Your task to perform on an android device: View the shopping cart on costco.com. Add amazon basics triple a to the cart on costco.com, then select checkout. Image 0: 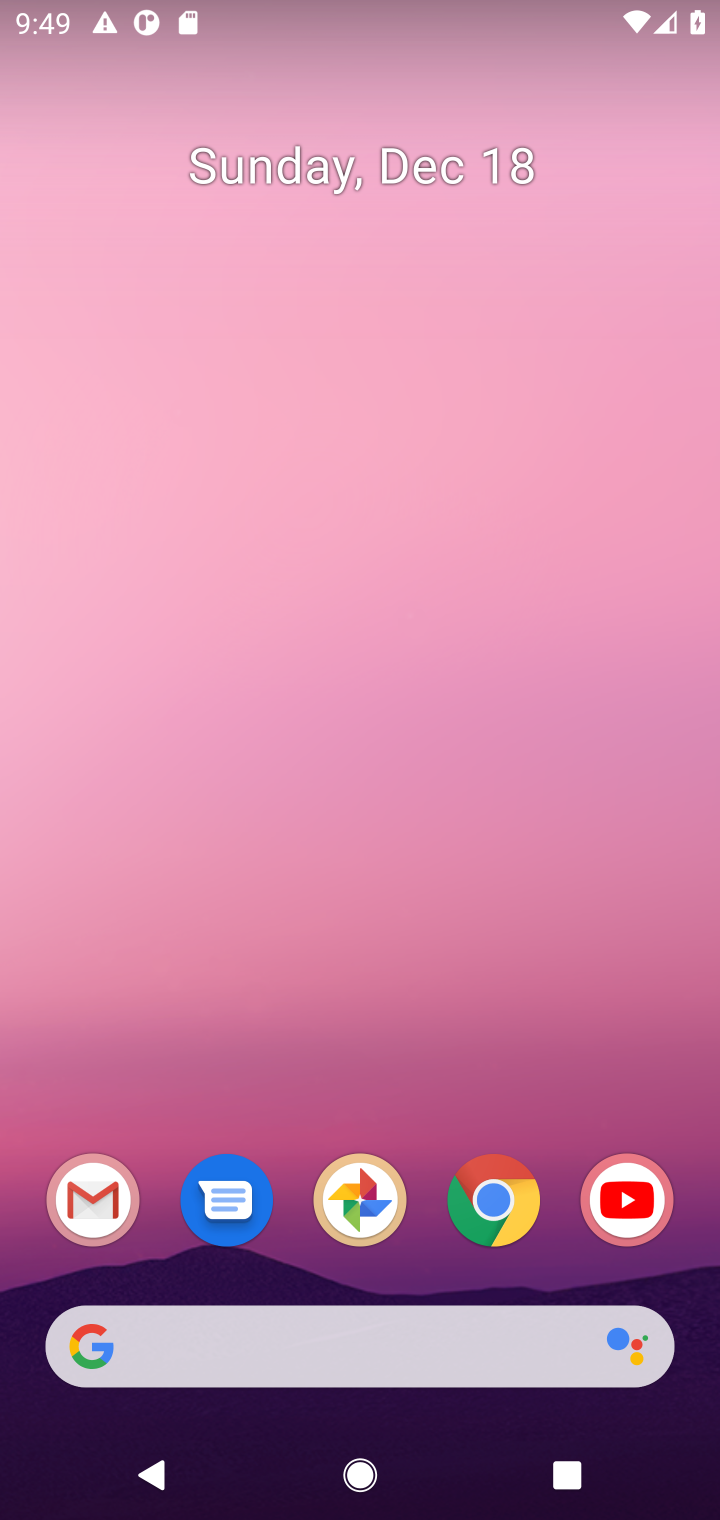
Step 0: click (485, 1199)
Your task to perform on an android device: View the shopping cart on costco.com. Add amazon basics triple a to the cart on costco.com, then select checkout. Image 1: 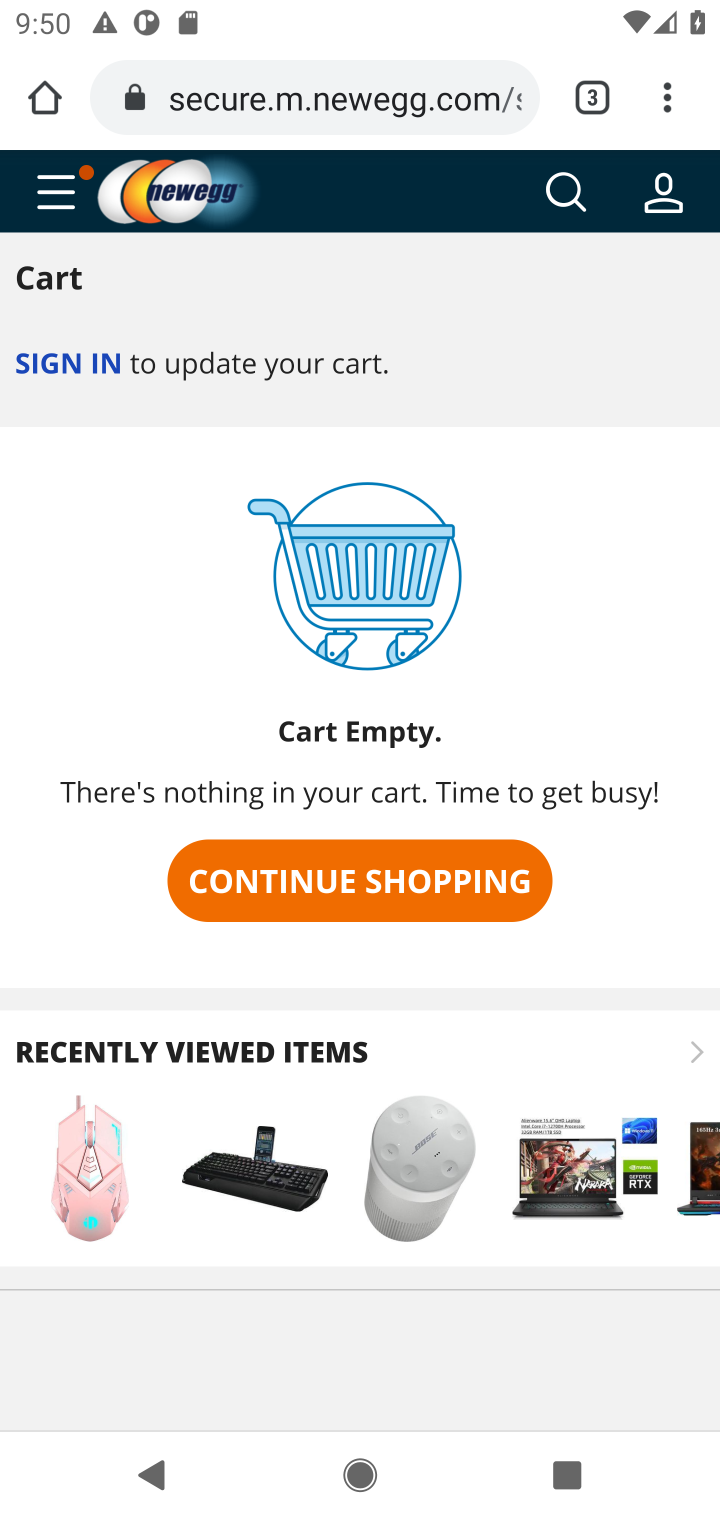
Step 1: click (259, 98)
Your task to perform on an android device: View the shopping cart on costco.com. Add amazon basics triple a to the cart on costco.com, then select checkout. Image 2: 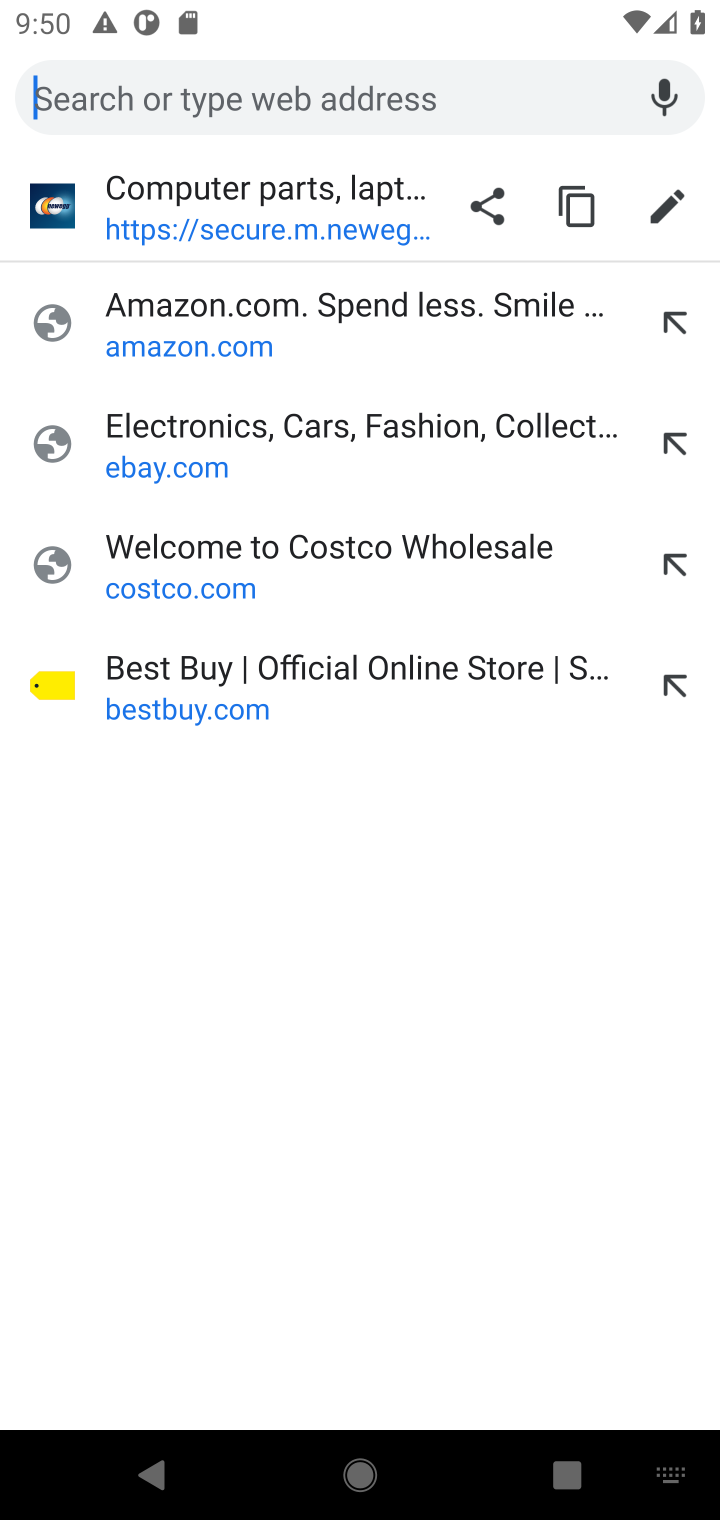
Step 2: click (174, 556)
Your task to perform on an android device: View the shopping cart on costco.com. Add amazon basics triple a to the cart on costco.com, then select checkout. Image 3: 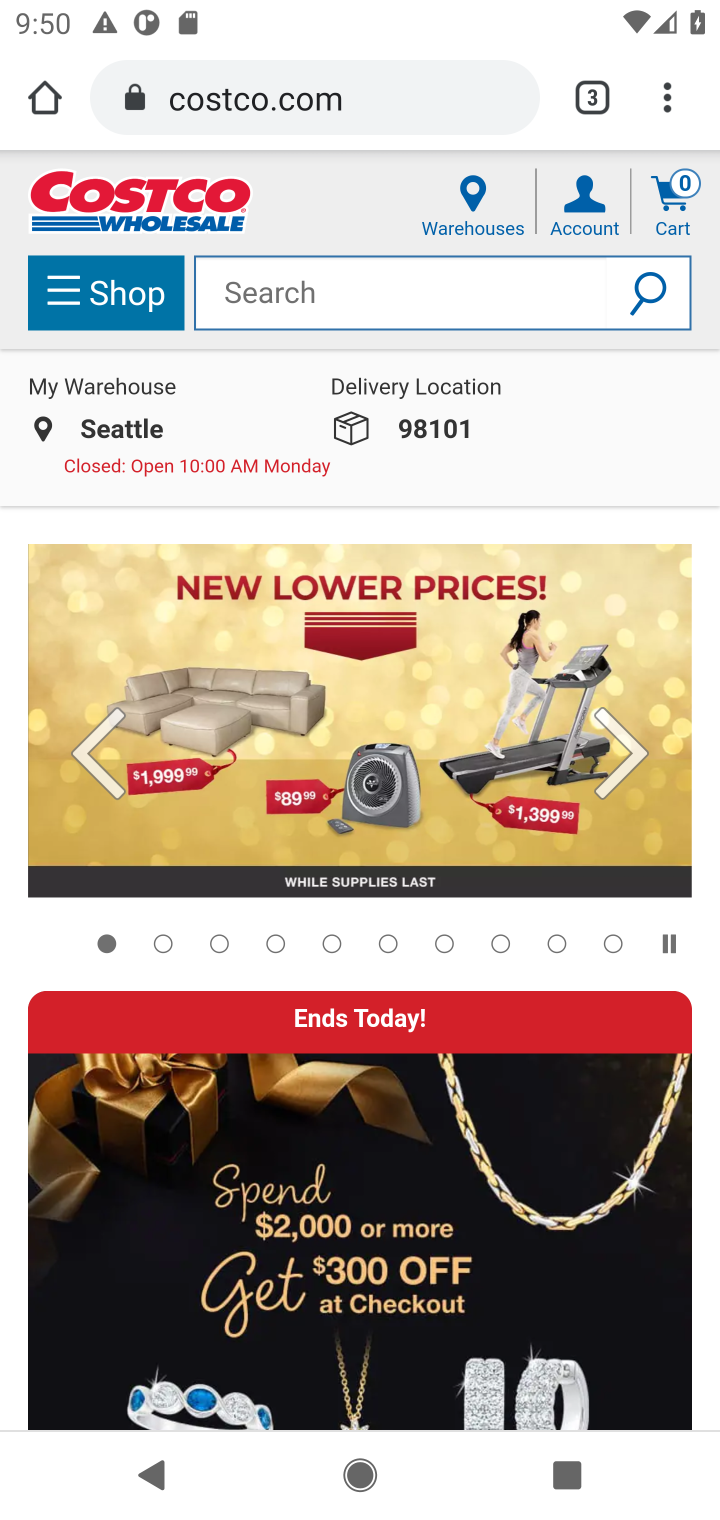
Step 3: click (676, 205)
Your task to perform on an android device: View the shopping cart on costco.com. Add amazon basics triple a to the cart on costco.com, then select checkout. Image 4: 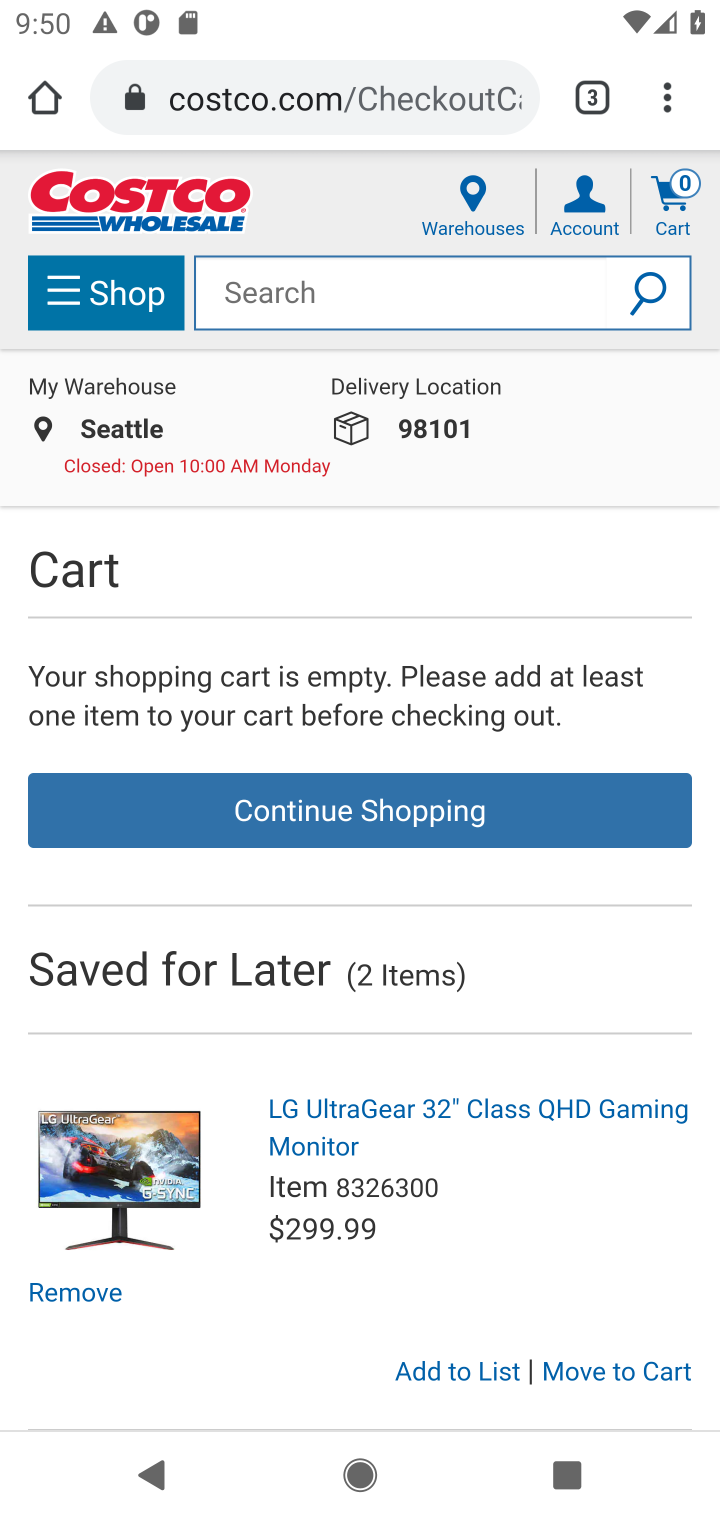
Step 4: click (312, 309)
Your task to perform on an android device: View the shopping cart on costco.com. Add amazon basics triple a to the cart on costco.com, then select checkout. Image 5: 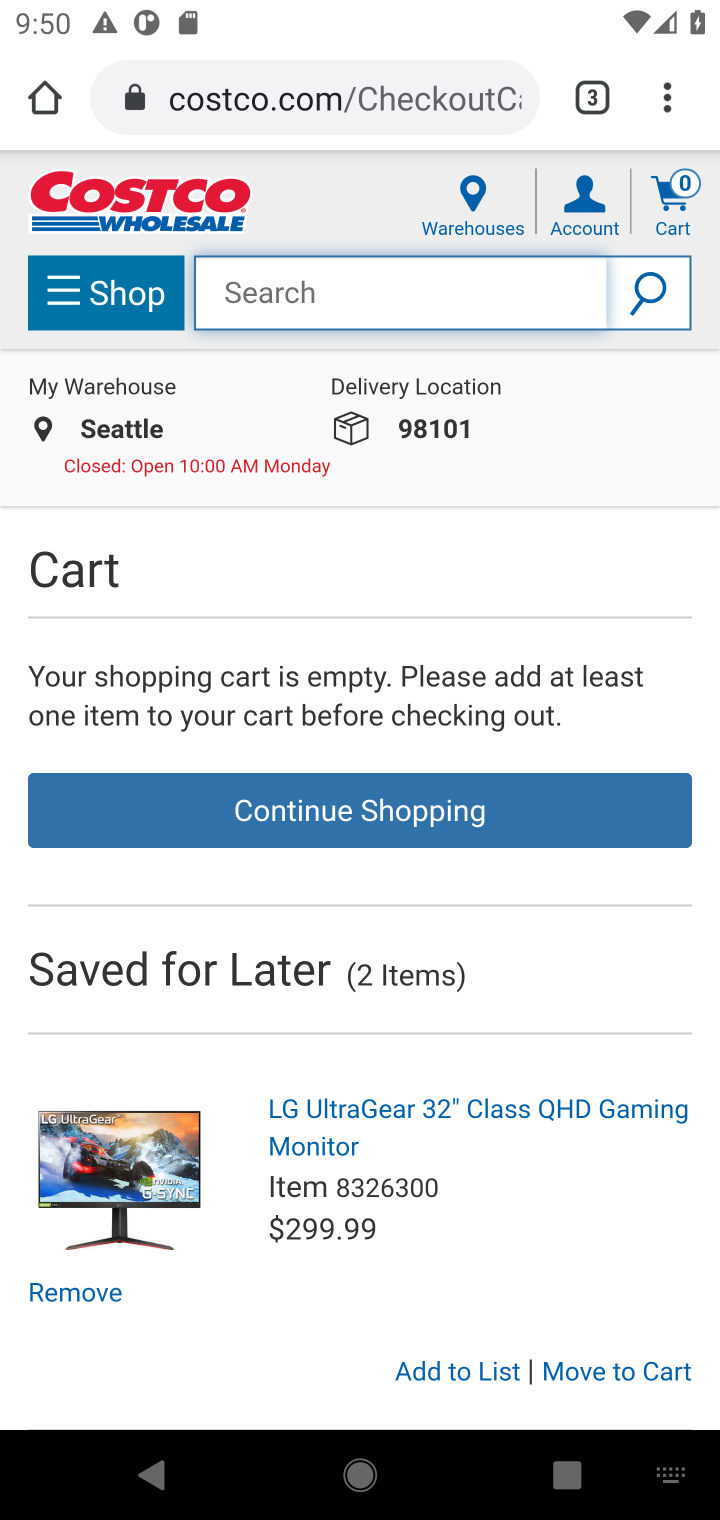
Step 5: type "amazon basics triple a"
Your task to perform on an android device: View the shopping cart on costco.com. Add amazon basics triple a to the cart on costco.com, then select checkout. Image 6: 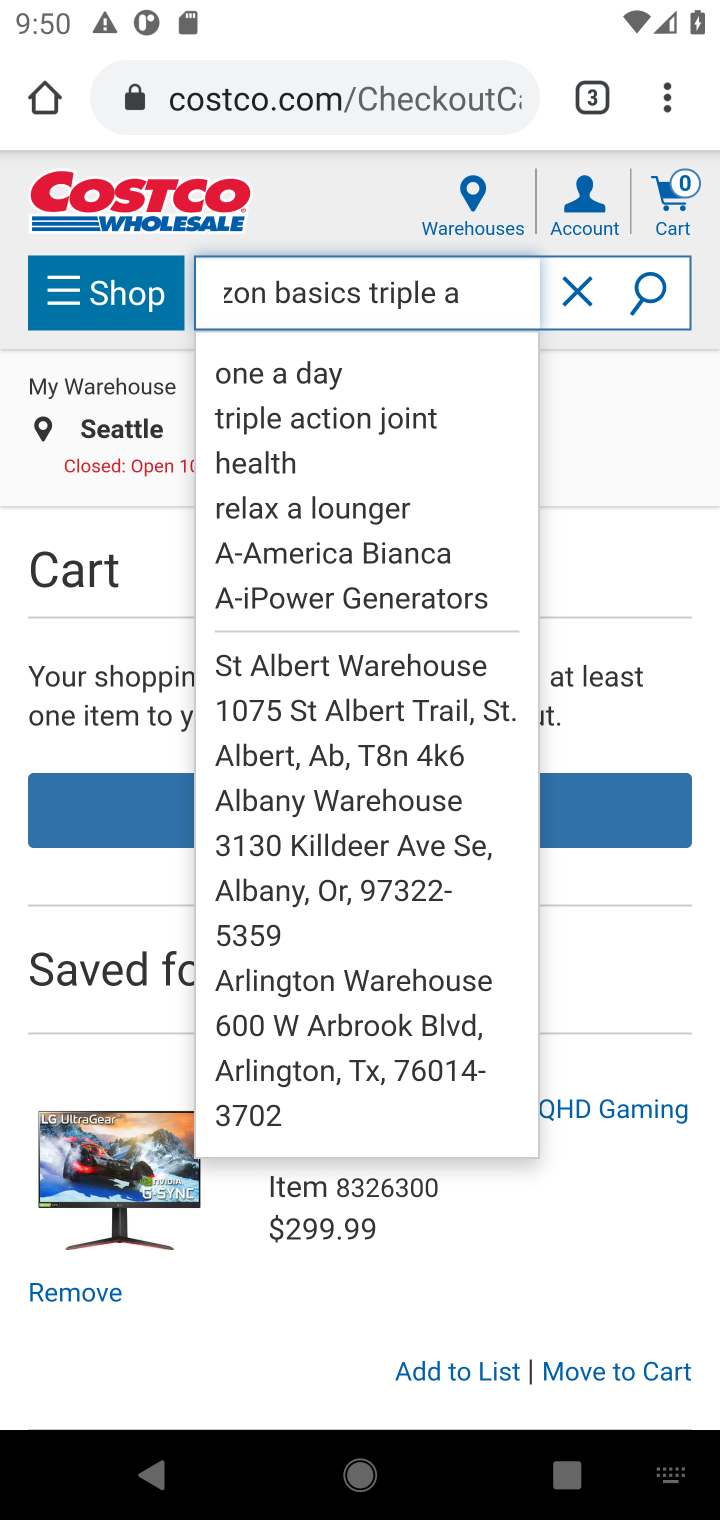
Step 6: click (660, 301)
Your task to perform on an android device: View the shopping cart on costco.com. Add amazon basics triple a to the cart on costco.com, then select checkout. Image 7: 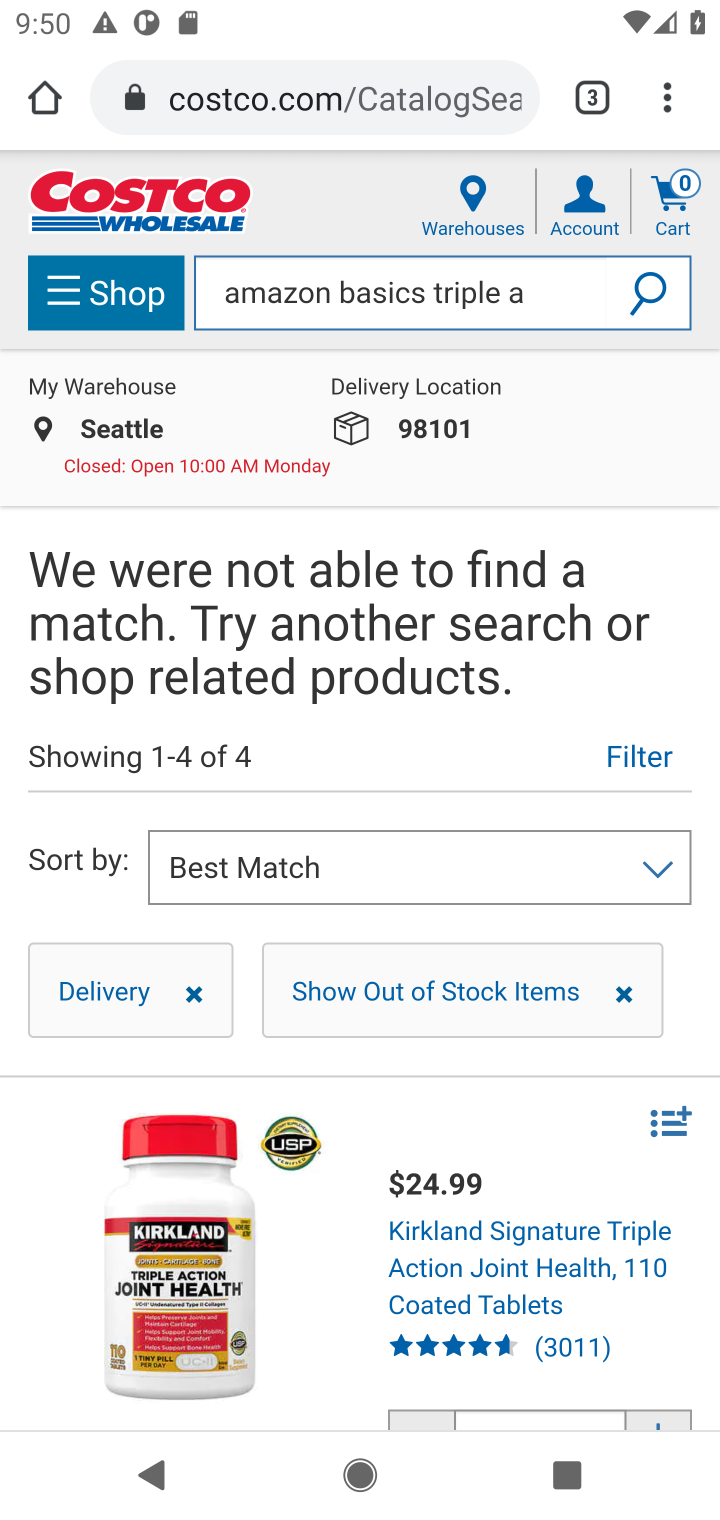
Step 7: task complete